Your task to perform on an android device: Open accessibility settings Image 0: 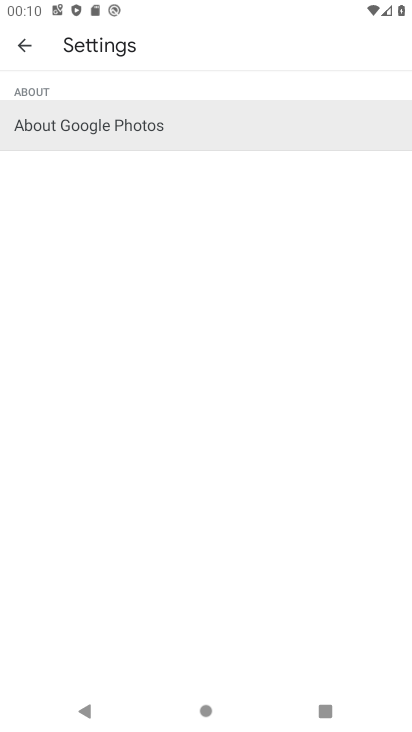
Step 0: press home button
Your task to perform on an android device: Open accessibility settings Image 1: 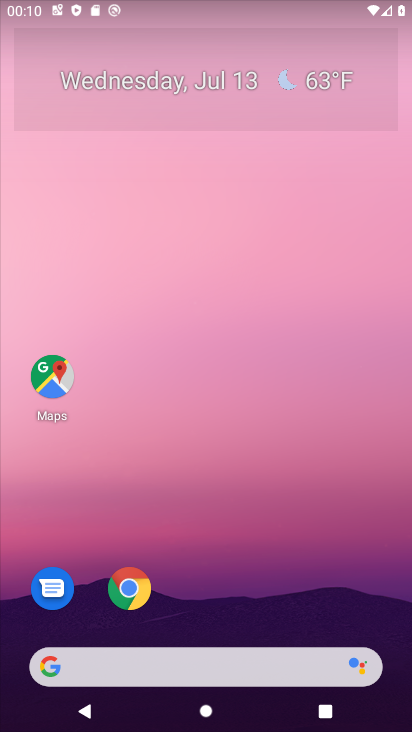
Step 1: drag from (33, 706) to (226, 131)
Your task to perform on an android device: Open accessibility settings Image 2: 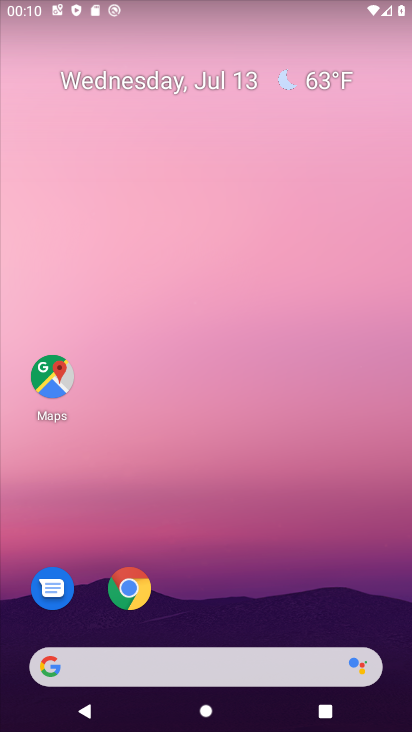
Step 2: drag from (88, 479) to (150, 173)
Your task to perform on an android device: Open accessibility settings Image 3: 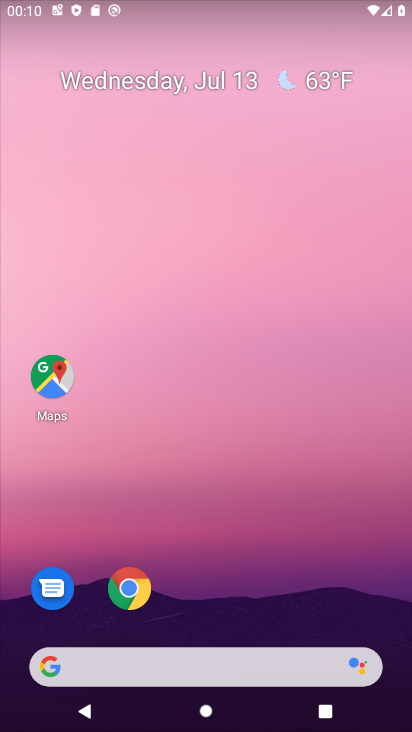
Step 3: drag from (71, 469) to (68, 717)
Your task to perform on an android device: Open accessibility settings Image 4: 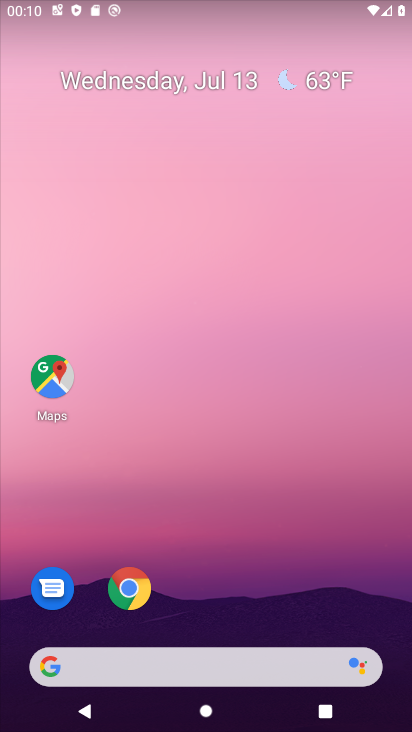
Step 4: drag from (42, 704) to (393, 85)
Your task to perform on an android device: Open accessibility settings Image 5: 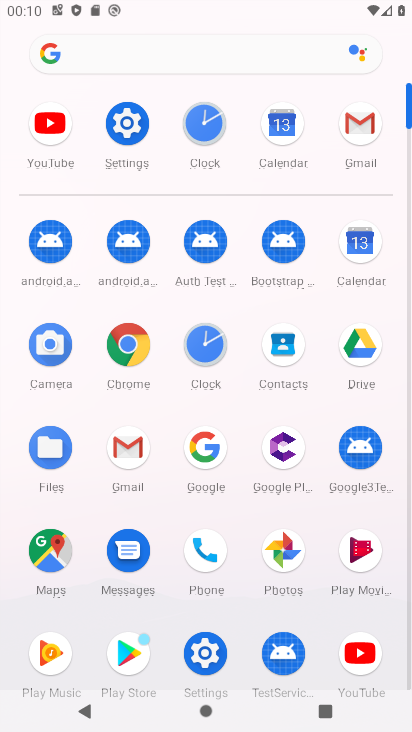
Step 5: click (207, 655)
Your task to perform on an android device: Open accessibility settings Image 6: 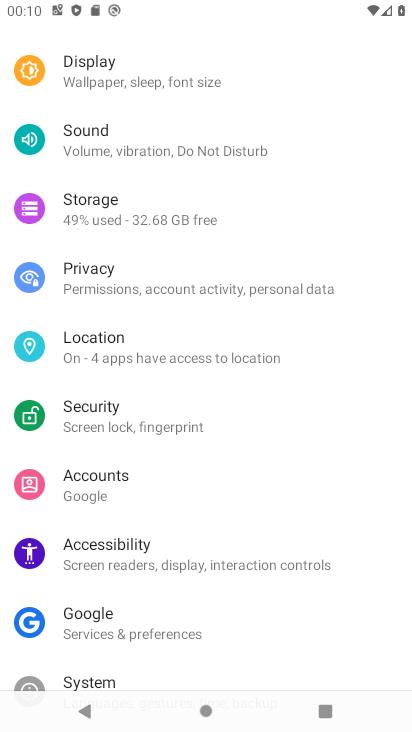
Step 6: click (106, 548)
Your task to perform on an android device: Open accessibility settings Image 7: 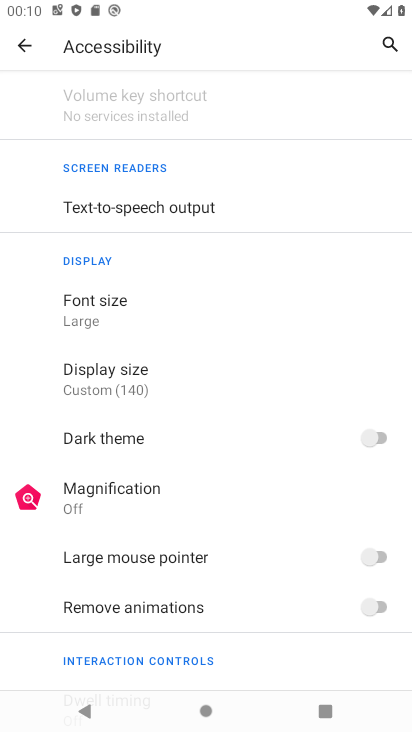
Step 7: task complete